Your task to perform on an android device: turn off wifi Image 0: 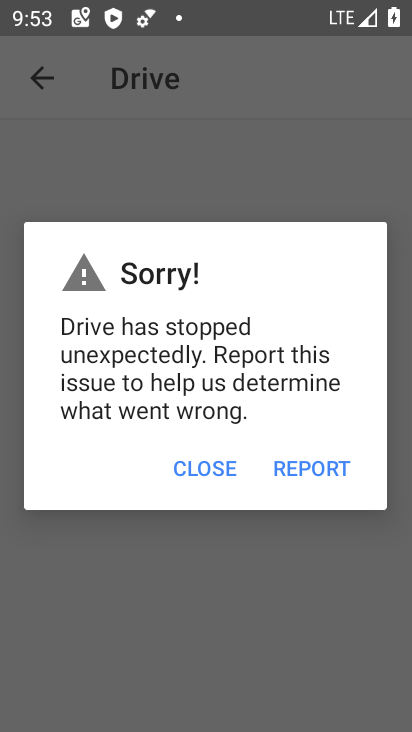
Step 0: press home button
Your task to perform on an android device: turn off wifi Image 1: 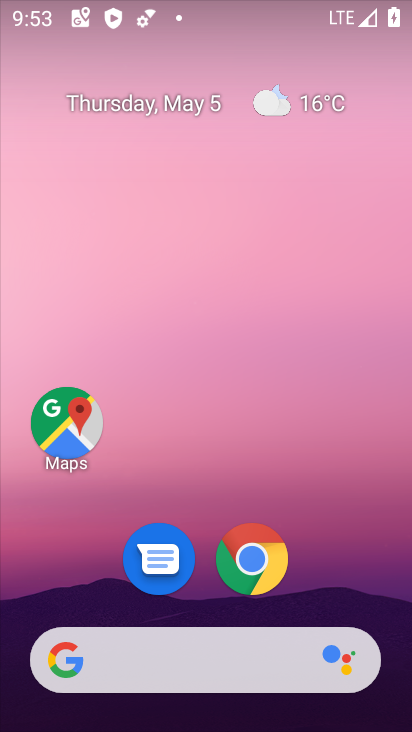
Step 1: drag from (292, 219) to (299, 101)
Your task to perform on an android device: turn off wifi Image 2: 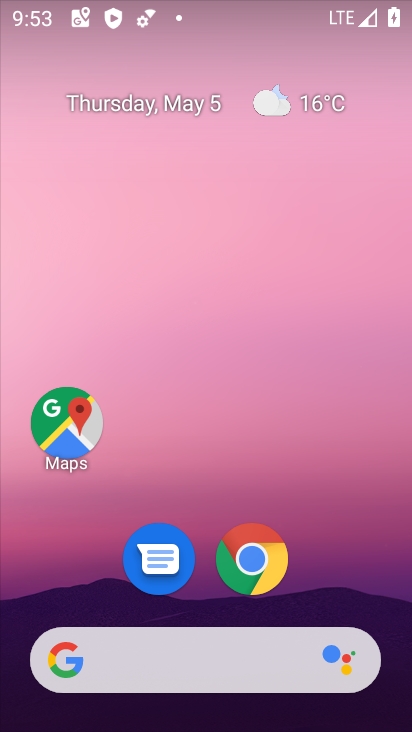
Step 2: drag from (209, 597) to (236, 5)
Your task to perform on an android device: turn off wifi Image 3: 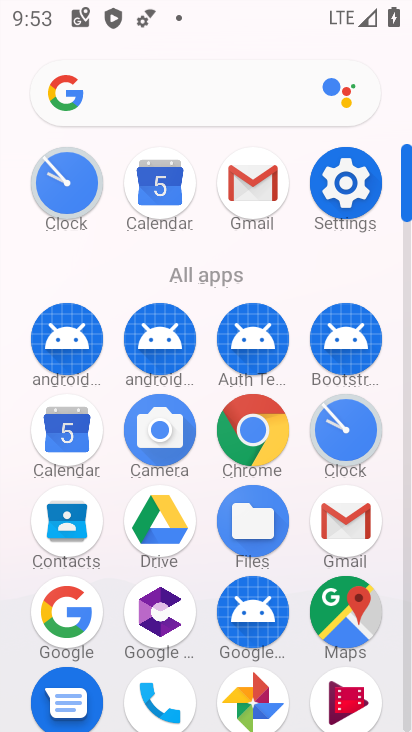
Step 3: click (347, 212)
Your task to perform on an android device: turn off wifi Image 4: 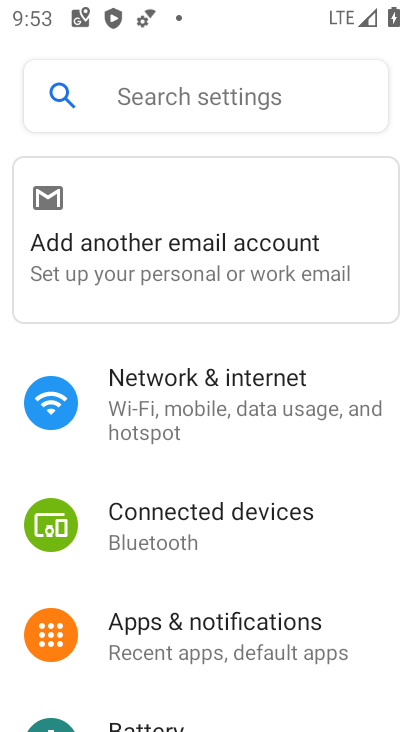
Step 4: click (210, 404)
Your task to perform on an android device: turn off wifi Image 5: 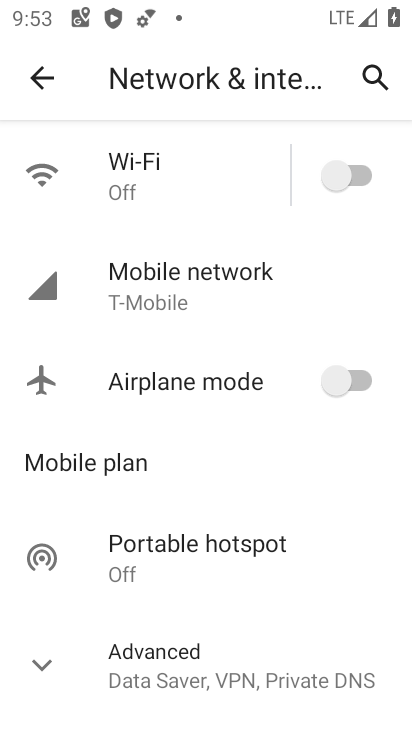
Step 5: task complete